Your task to perform on an android device: change alarm snooze length Image 0: 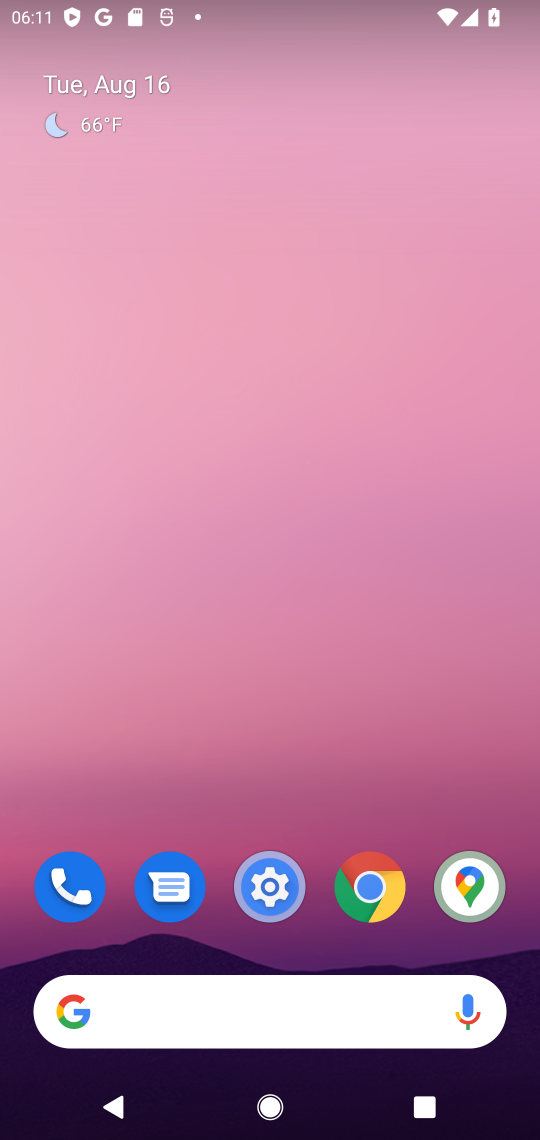
Step 0: drag from (333, 661) to (425, 87)
Your task to perform on an android device: change alarm snooze length Image 1: 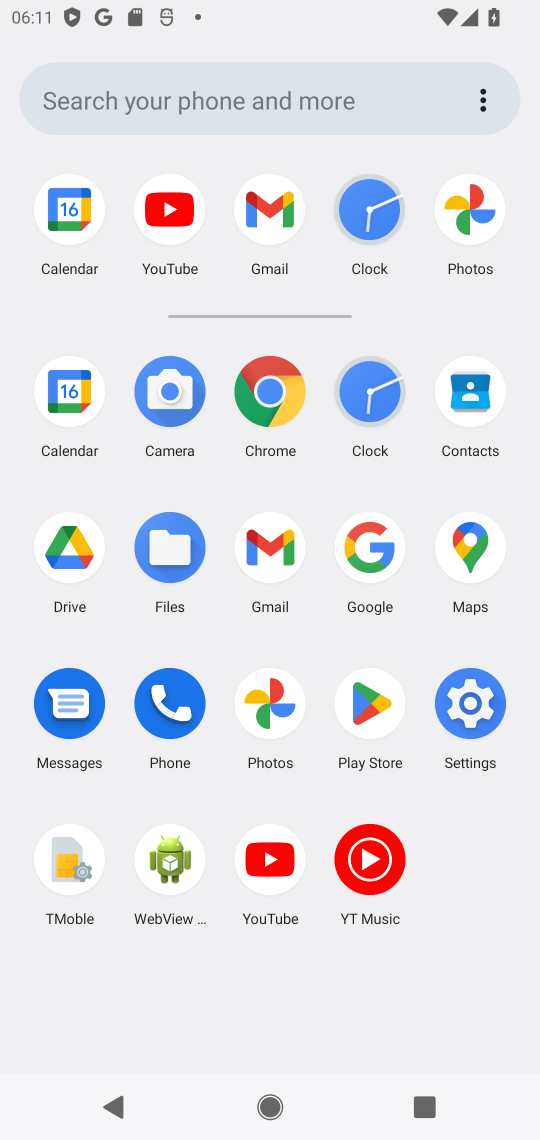
Step 1: click (363, 397)
Your task to perform on an android device: change alarm snooze length Image 2: 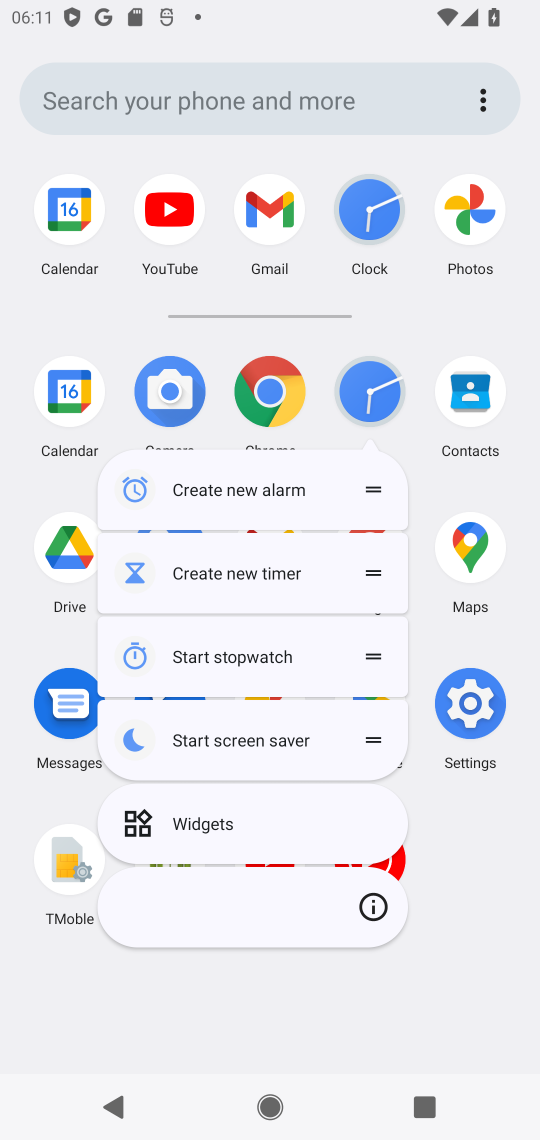
Step 2: click (375, 382)
Your task to perform on an android device: change alarm snooze length Image 3: 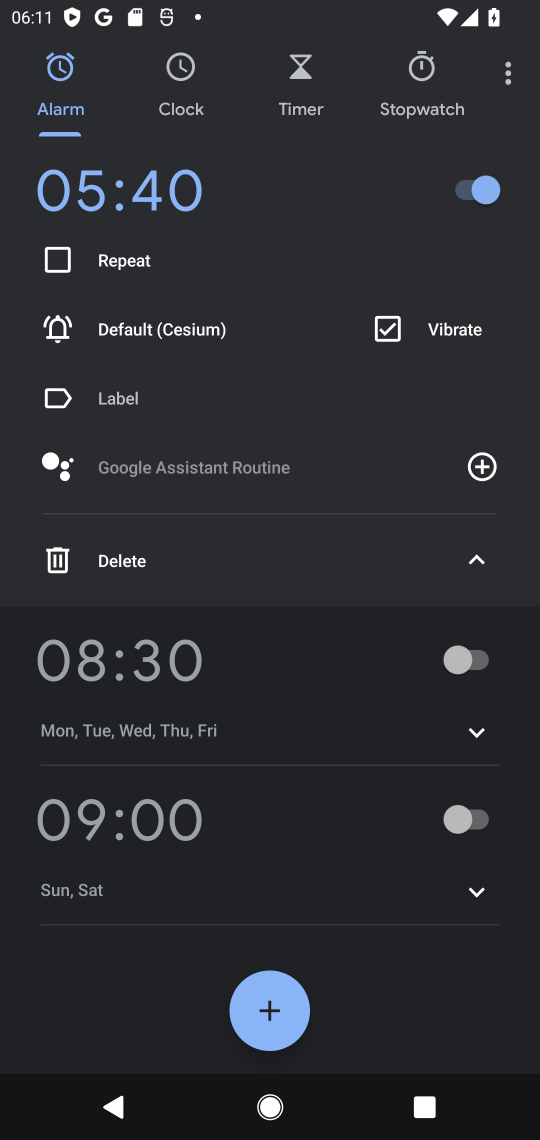
Step 3: click (510, 66)
Your task to perform on an android device: change alarm snooze length Image 4: 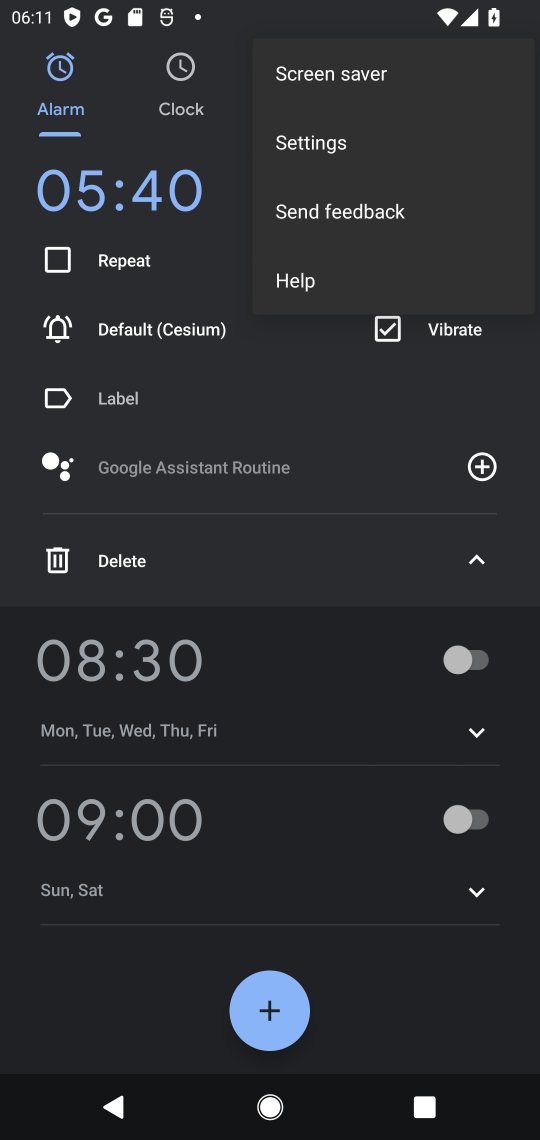
Step 4: click (389, 129)
Your task to perform on an android device: change alarm snooze length Image 5: 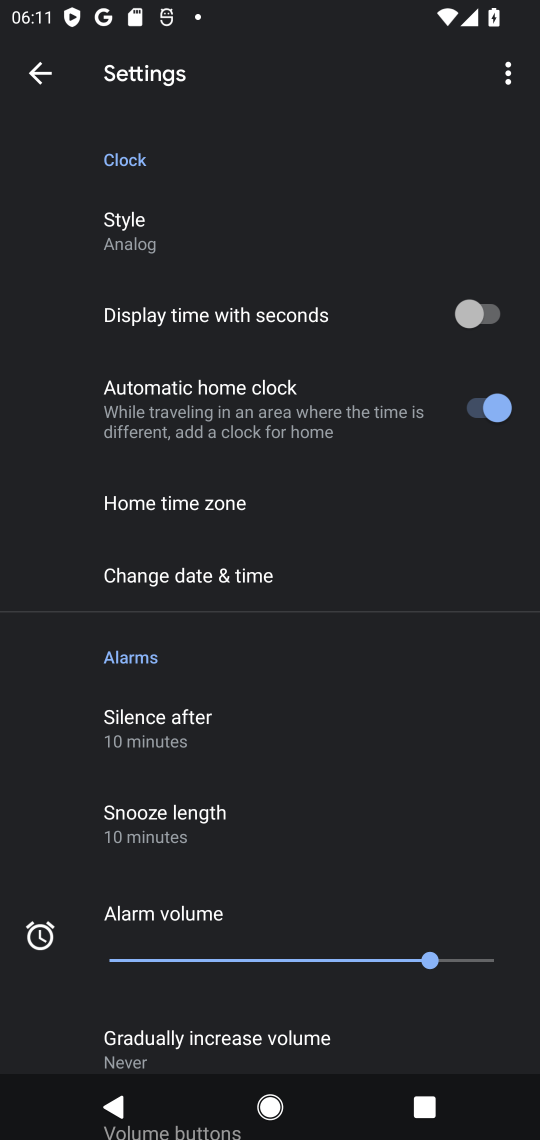
Step 5: click (179, 812)
Your task to perform on an android device: change alarm snooze length Image 6: 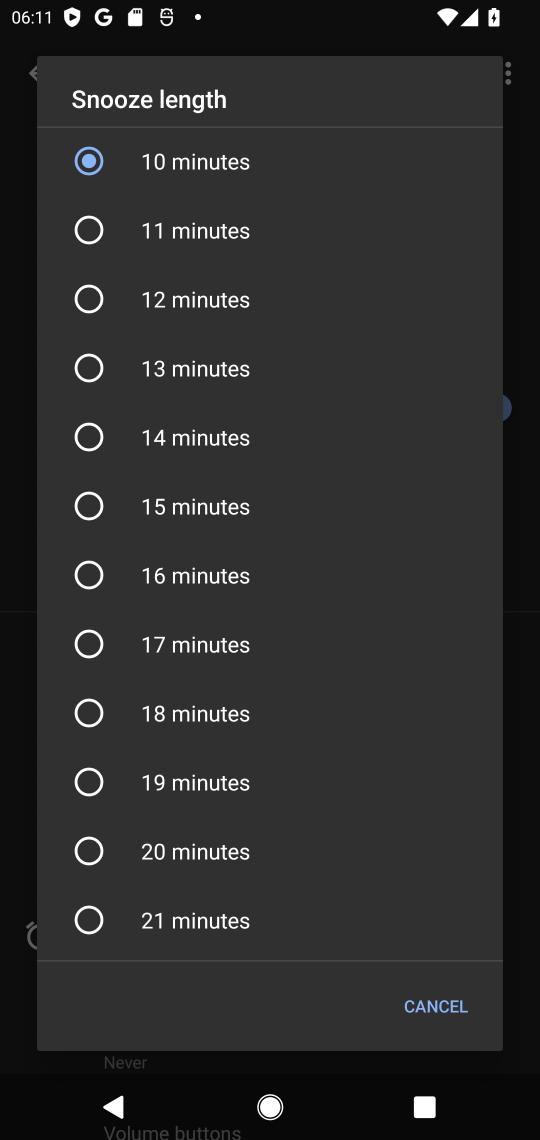
Step 6: click (184, 221)
Your task to perform on an android device: change alarm snooze length Image 7: 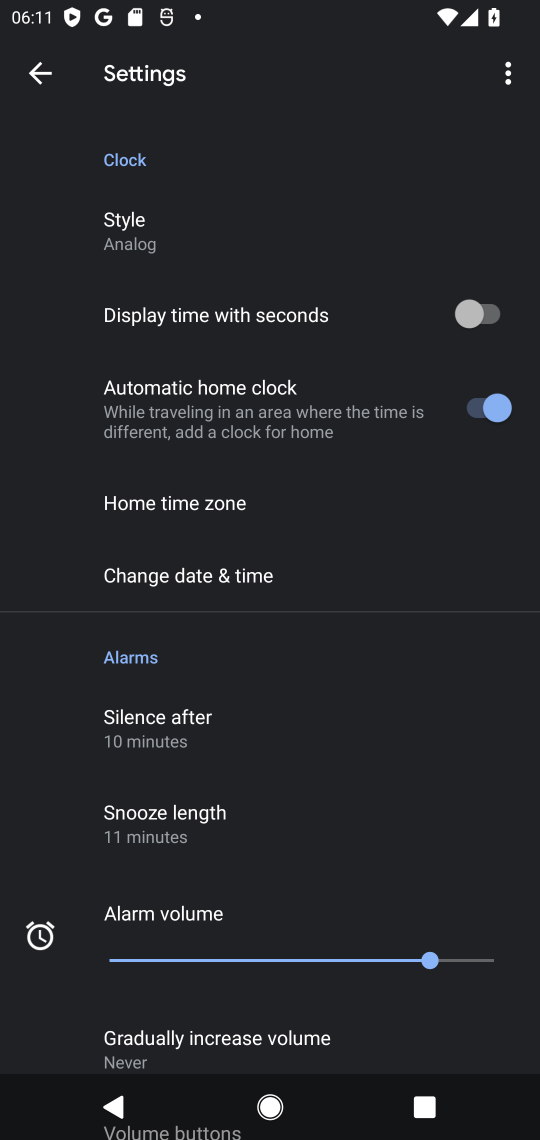
Step 7: task complete